Your task to perform on an android device: Open calendar and show me the first week of next month Image 0: 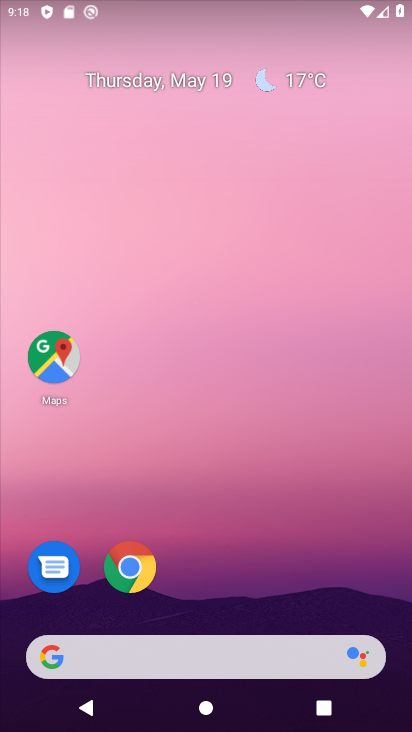
Step 0: drag from (239, 607) to (220, 174)
Your task to perform on an android device: Open calendar and show me the first week of next month Image 1: 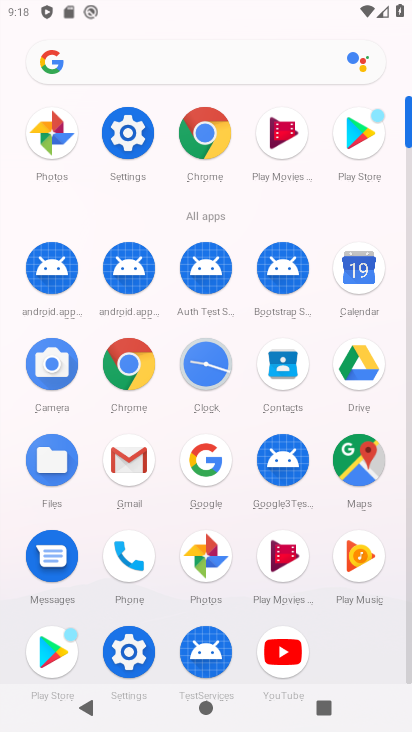
Step 1: click (364, 281)
Your task to perform on an android device: Open calendar and show me the first week of next month Image 2: 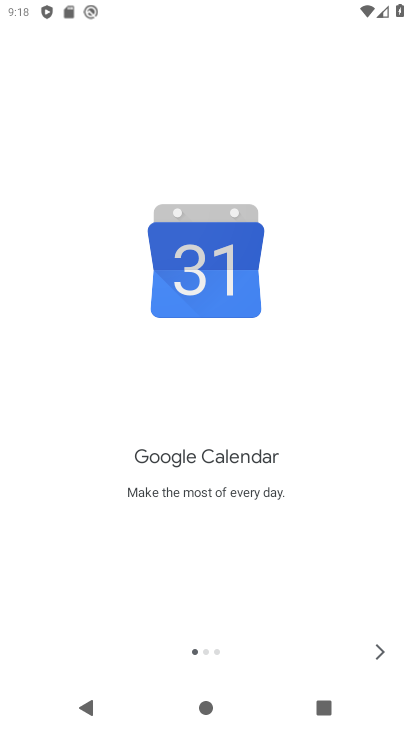
Step 2: click (382, 654)
Your task to perform on an android device: Open calendar and show me the first week of next month Image 3: 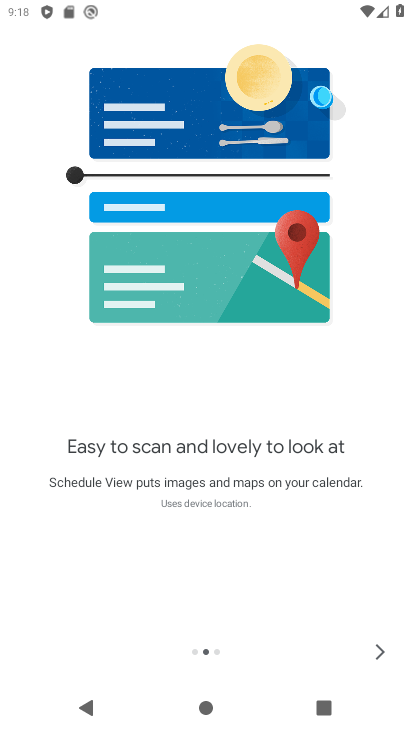
Step 3: click (382, 654)
Your task to perform on an android device: Open calendar and show me the first week of next month Image 4: 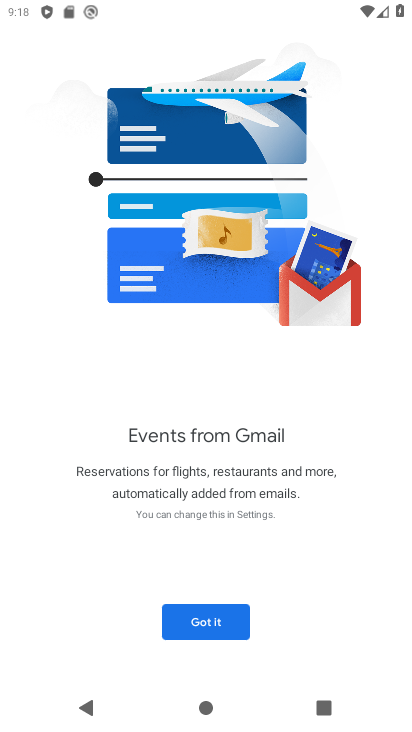
Step 4: click (193, 624)
Your task to perform on an android device: Open calendar and show me the first week of next month Image 5: 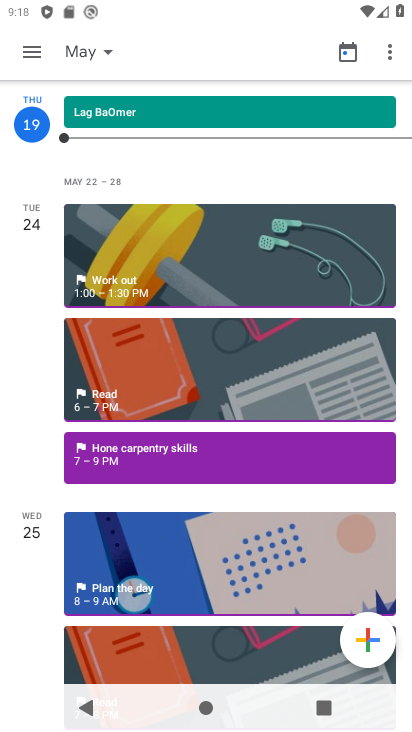
Step 5: click (35, 53)
Your task to perform on an android device: Open calendar and show me the first week of next month Image 6: 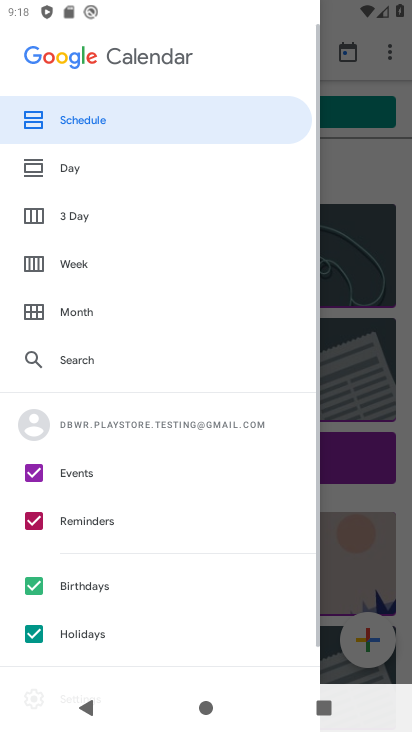
Step 6: click (82, 258)
Your task to perform on an android device: Open calendar and show me the first week of next month Image 7: 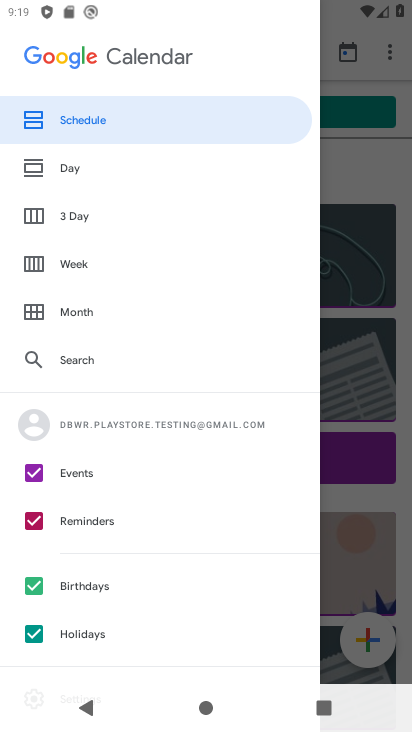
Step 7: click (99, 264)
Your task to perform on an android device: Open calendar and show me the first week of next month Image 8: 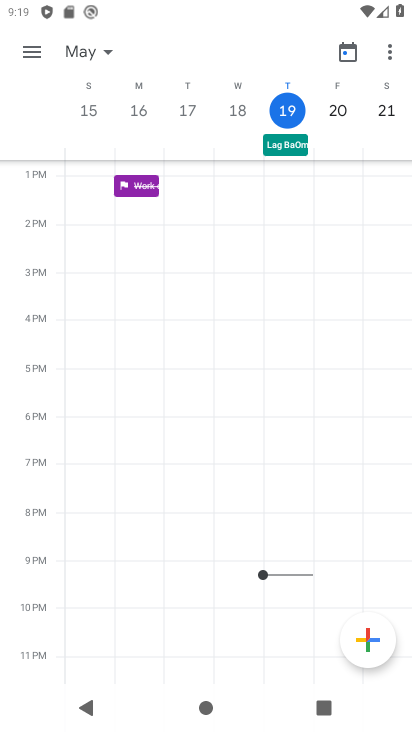
Step 8: click (95, 56)
Your task to perform on an android device: Open calendar and show me the first week of next month Image 9: 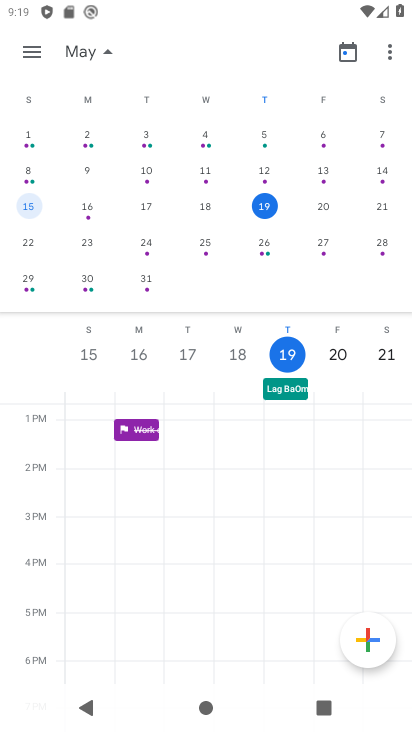
Step 9: drag from (329, 209) to (43, 168)
Your task to perform on an android device: Open calendar and show me the first week of next month Image 10: 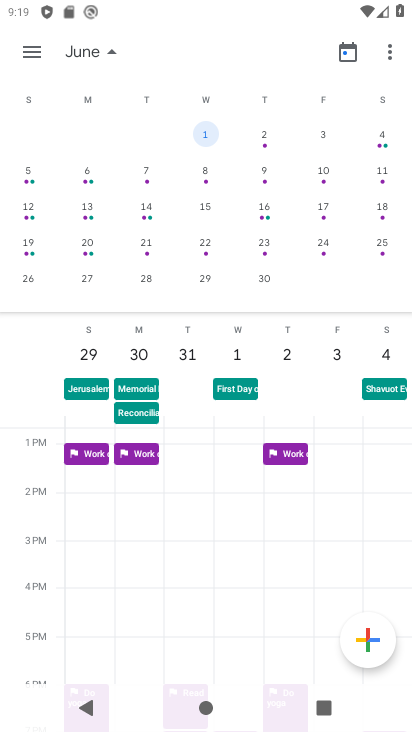
Step 10: click (85, 174)
Your task to perform on an android device: Open calendar and show me the first week of next month Image 11: 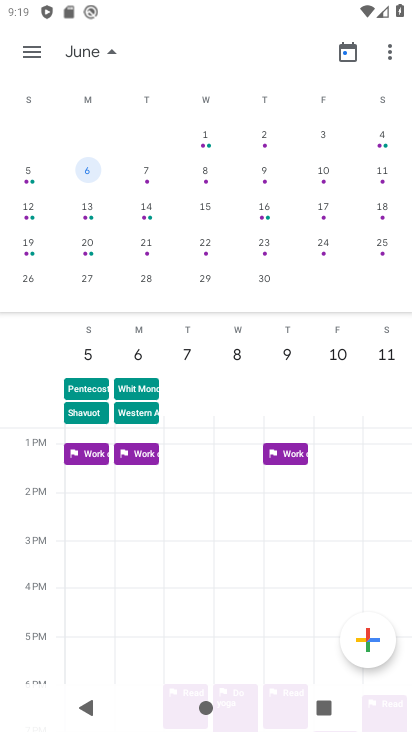
Step 11: task complete